Your task to perform on an android device: turn on the 24-hour format for clock Image 0: 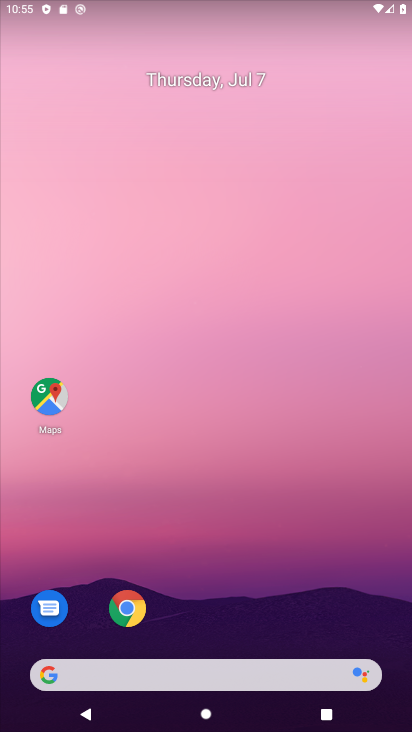
Step 0: drag from (293, 618) to (216, 275)
Your task to perform on an android device: turn on the 24-hour format for clock Image 1: 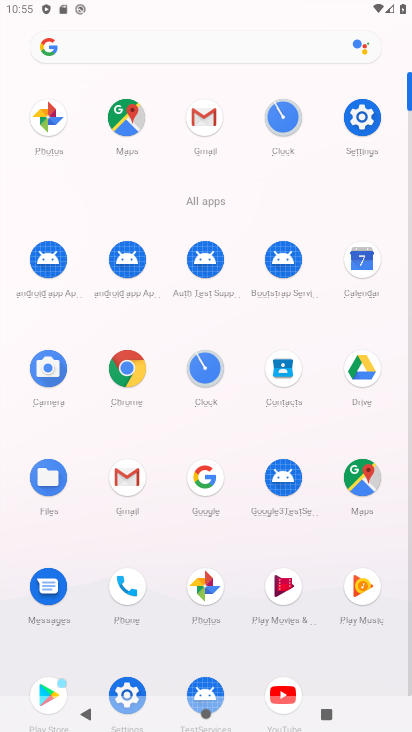
Step 1: click (271, 114)
Your task to perform on an android device: turn on the 24-hour format for clock Image 2: 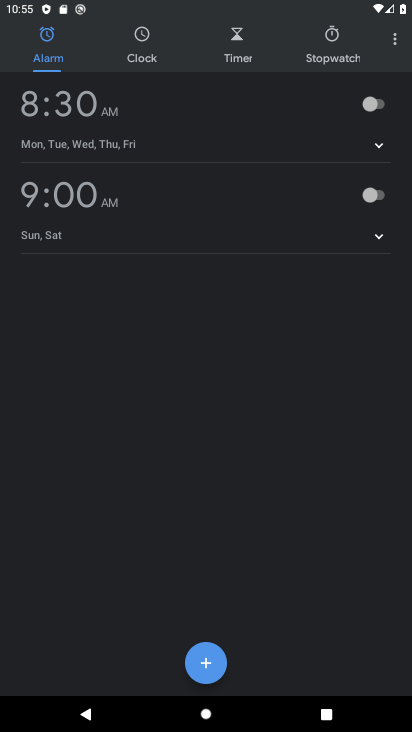
Step 2: click (400, 26)
Your task to perform on an android device: turn on the 24-hour format for clock Image 3: 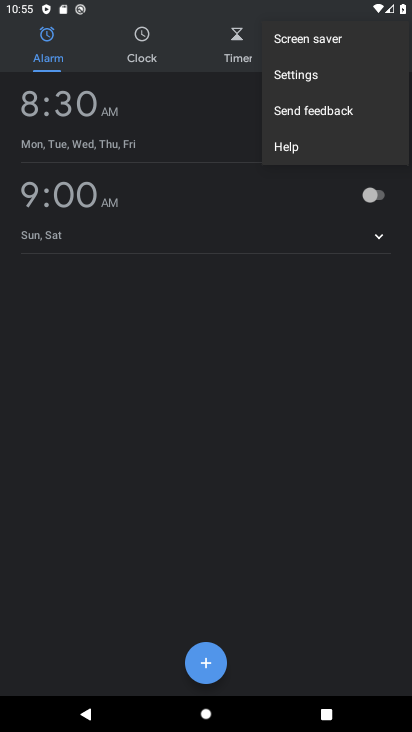
Step 3: click (318, 68)
Your task to perform on an android device: turn on the 24-hour format for clock Image 4: 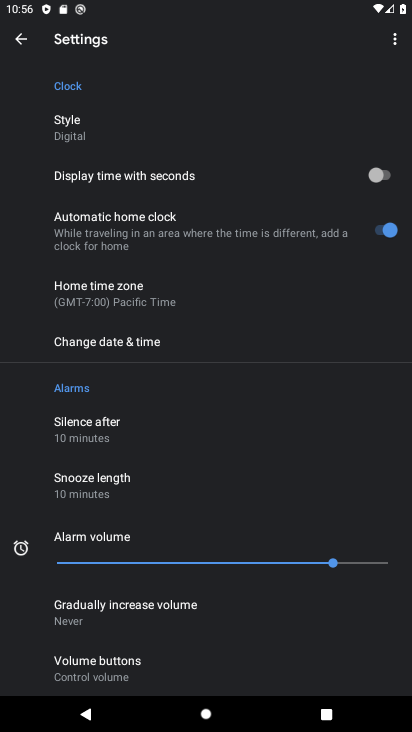
Step 4: click (118, 337)
Your task to perform on an android device: turn on the 24-hour format for clock Image 5: 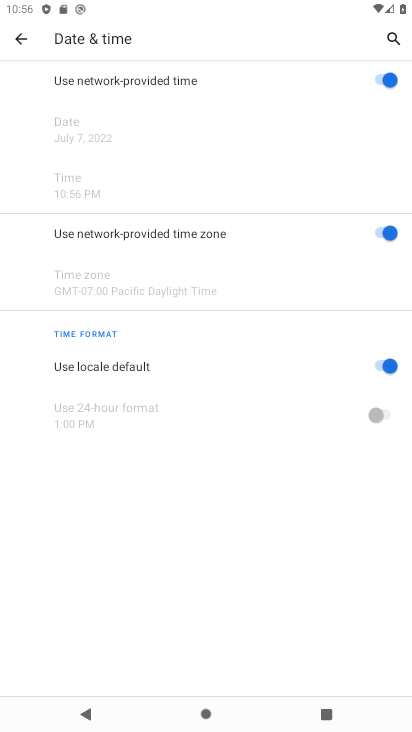
Step 5: click (380, 379)
Your task to perform on an android device: turn on the 24-hour format for clock Image 6: 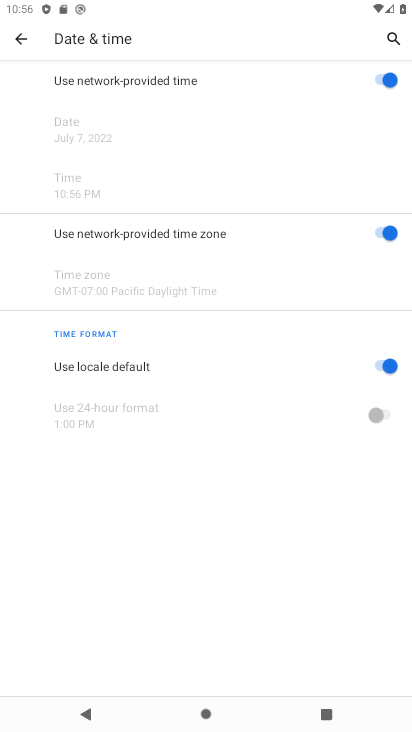
Step 6: click (380, 373)
Your task to perform on an android device: turn on the 24-hour format for clock Image 7: 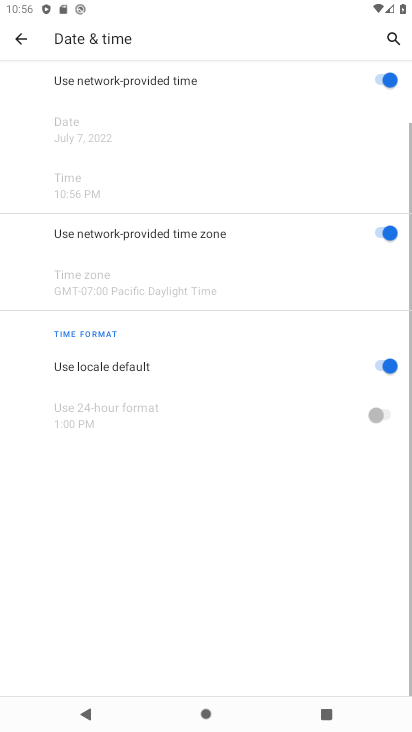
Step 7: click (386, 412)
Your task to perform on an android device: turn on the 24-hour format for clock Image 8: 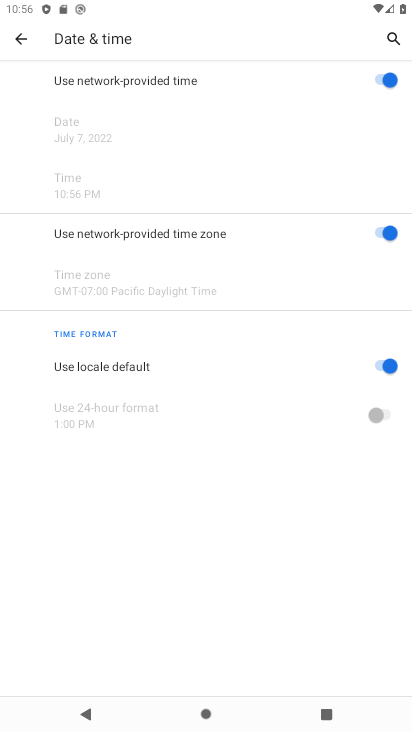
Step 8: click (386, 362)
Your task to perform on an android device: turn on the 24-hour format for clock Image 9: 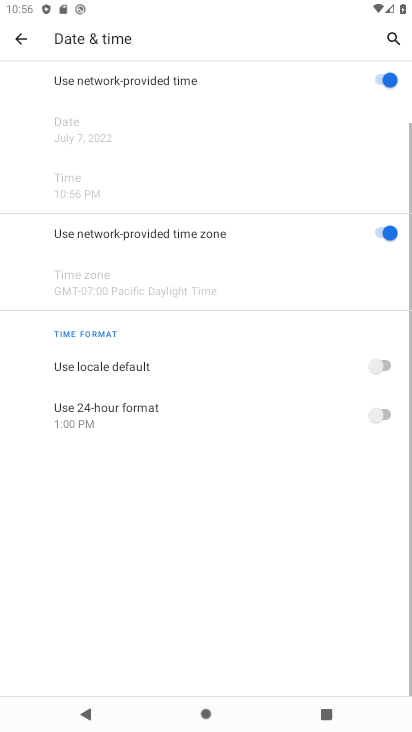
Step 9: click (383, 413)
Your task to perform on an android device: turn on the 24-hour format for clock Image 10: 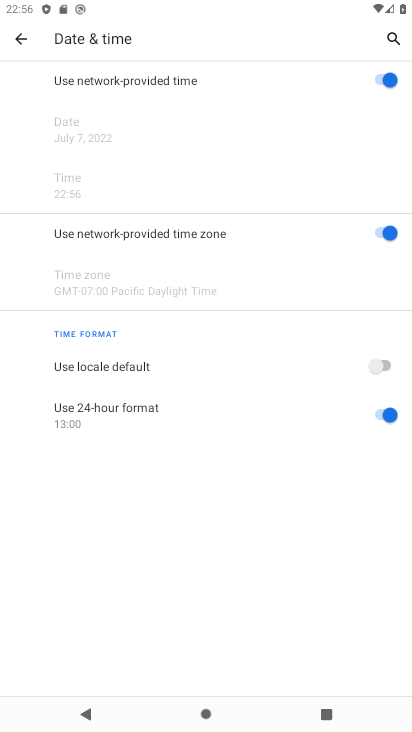
Step 10: task complete